Your task to perform on an android device: check google app version Image 0: 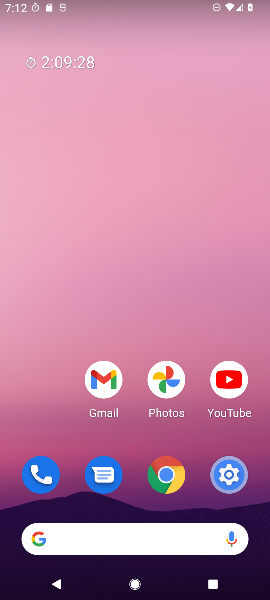
Step 0: press home button
Your task to perform on an android device: check google app version Image 1: 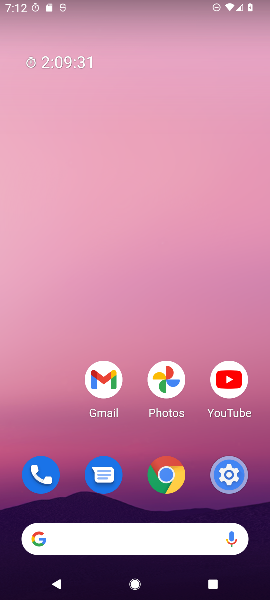
Step 1: drag from (57, 430) to (77, 136)
Your task to perform on an android device: check google app version Image 2: 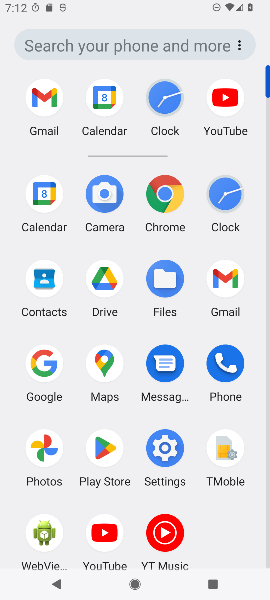
Step 2: click (54, 365)
Your task to perform on an android device: check google app version Image 3: 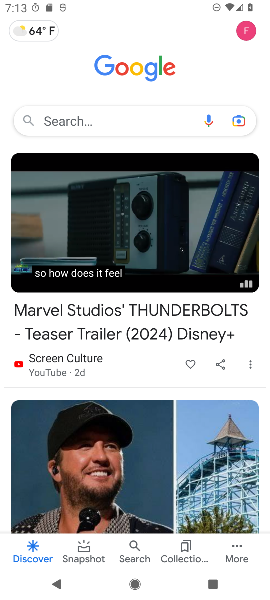
Step 3: click (237, 550)
Your task to perform on an android device: check google app version Image 4: 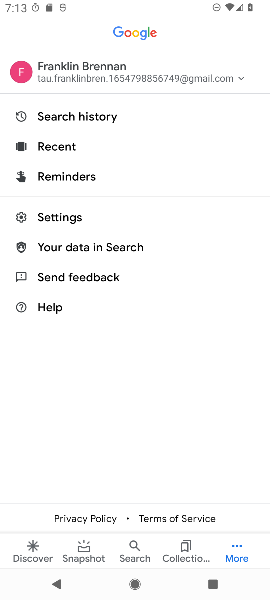
Step 4: click (76, 220)
Your task to perform on an android device: check google app version Image 5: 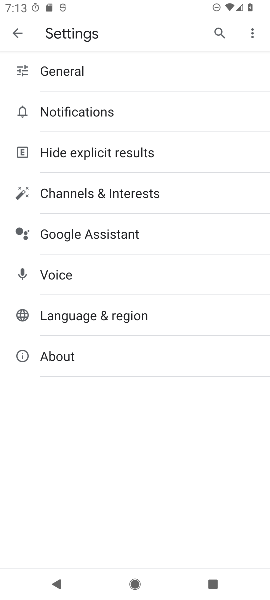
Step 5: click (72, 351)
Your task to perform on an android device: check google app version Image 6: 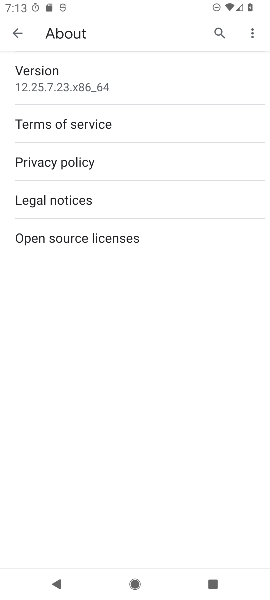
Step 6: task complete